Your task to perform on an android device: Go to Reddit.com Image 0: 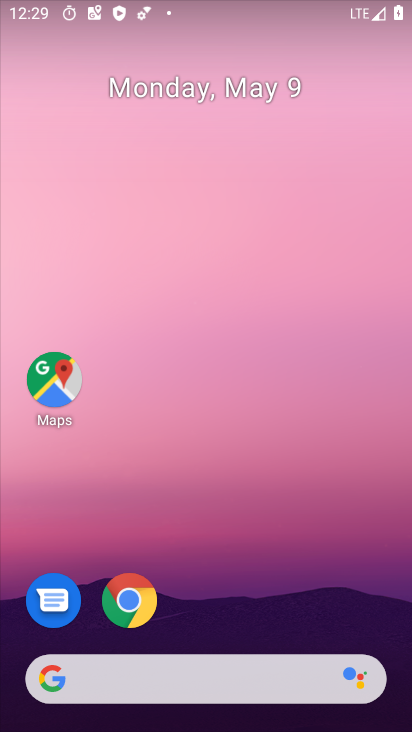
Step 0: drag from (230, 544) to (249, 255)
Your task to perform on an android device: Go to Reddit.com Image 1: 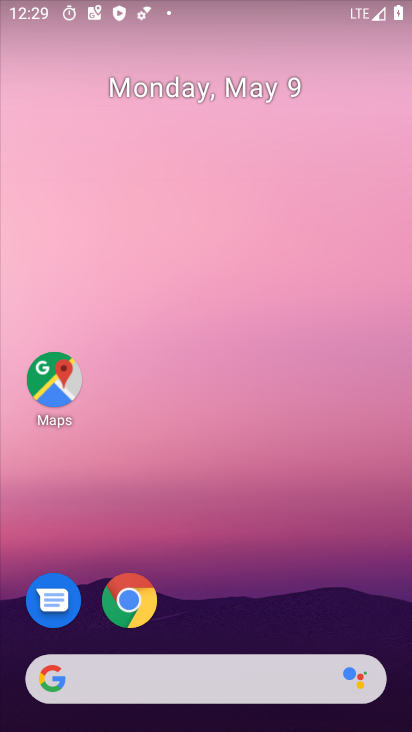
Step 1: drag from (246, 630) to (314, 176)
Your task to perform on an android device: Go to Reddit.com Image 2: 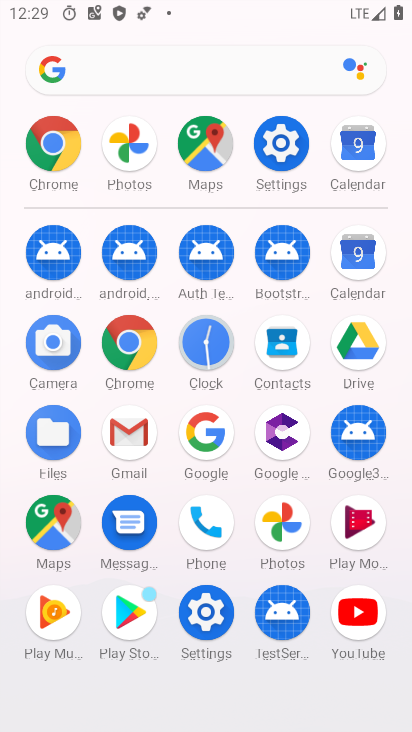
Step 2: drag from (217, 592) to (217, 152)
Your task to perform on an android device: Go to Reddit.com Image 3: 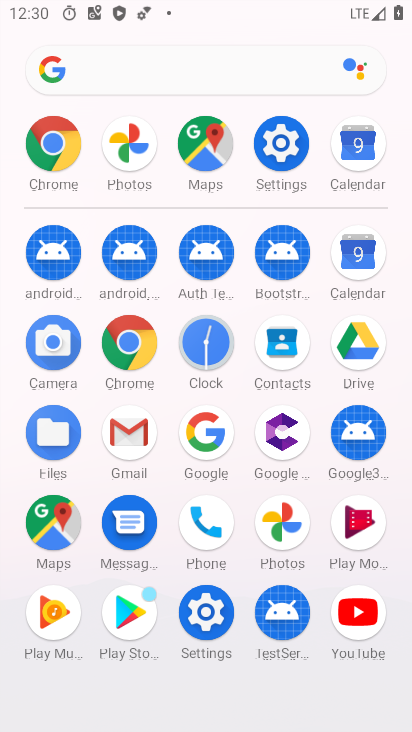
Step 3: click (136, 347)
Your task to perform on an android device: Go to Reddit.com Image 4: 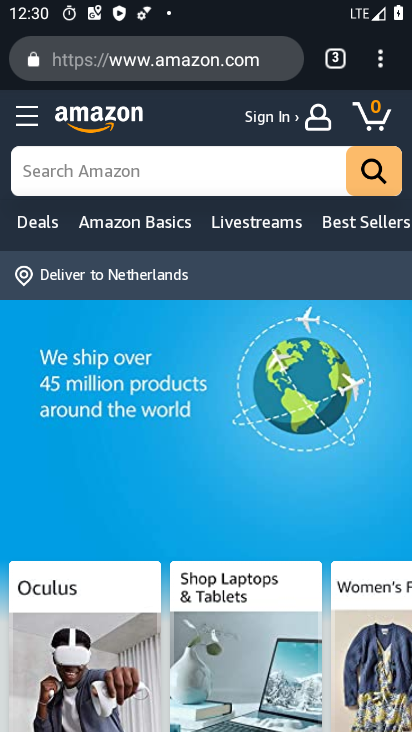
Step 4: click (334, 64)
Your task to perform on an android device: Go to Reddit.com Image 5: 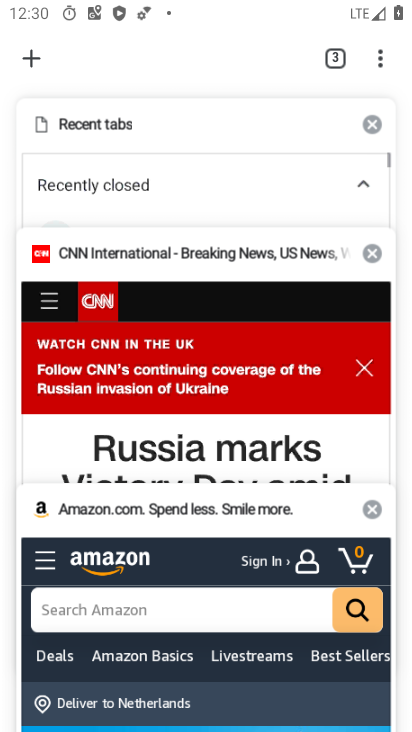
Step 5: click (33, 67)
Your task to perform on an android device: Go to Reddit.com Image 6: 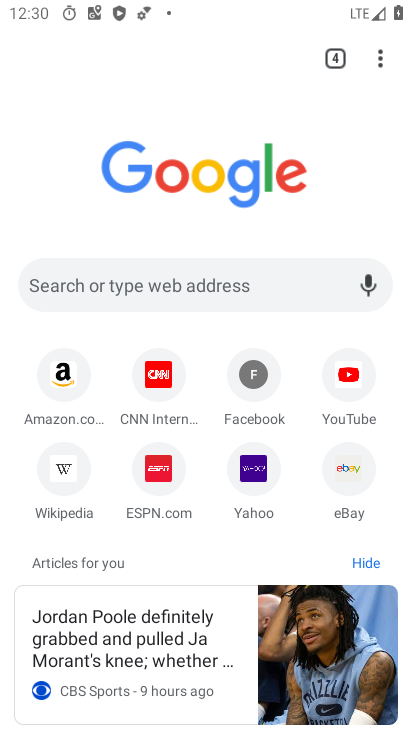
Step 6: click (134, 274)
Your task to perform on an android device: Go to Reddit.com Image 7: 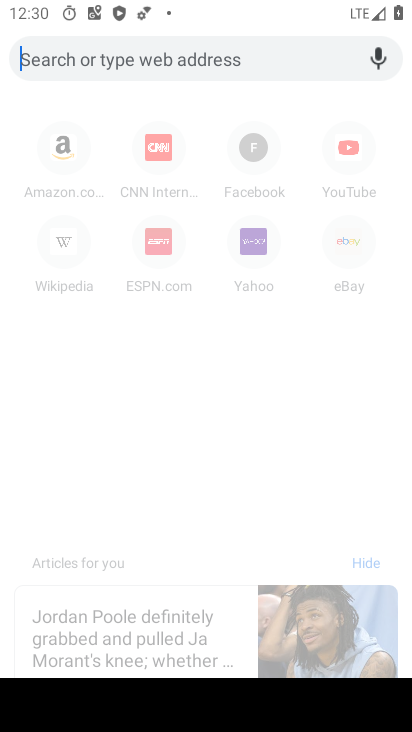
Step 7: type "Reddit.com"
Your task to perform on an android device: Go to Reddit.com Image 8: 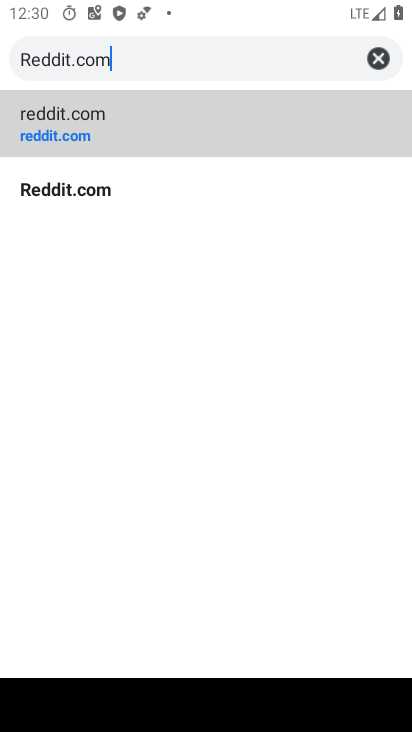
Step 8: type ""
Your task to perform on an android device: Go to Reddit.com Image 9: 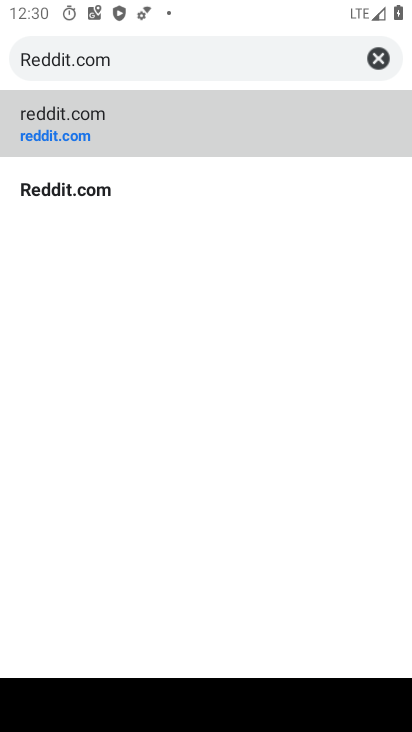
Step 9: click (118, 137)
Your task to perform on an android device: Go to Reddit.com Image 10: 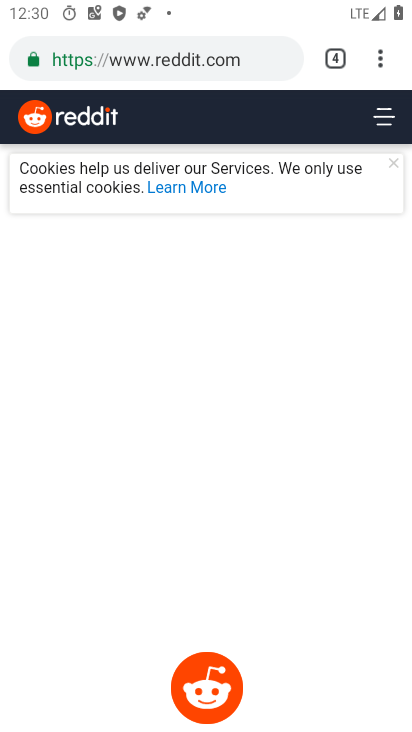
Step 10: drag from (168, 261) to (204, 245)
Your task to perform on an android device: Go to Reddit.com Image 11: 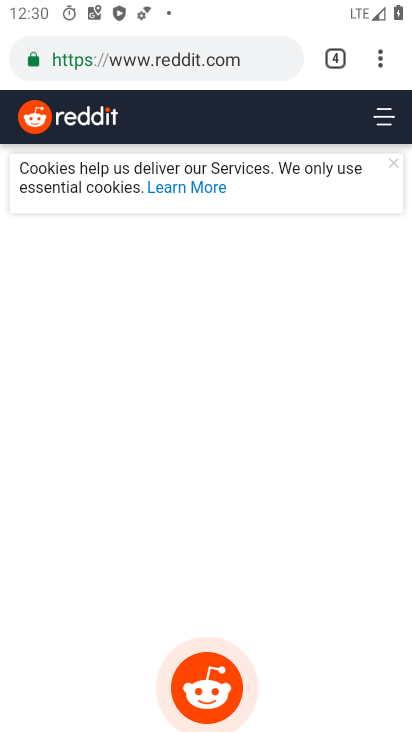
Step 11: click (392, 159)
Your task to perform on an android device: Go to Reddit.com Image 12: 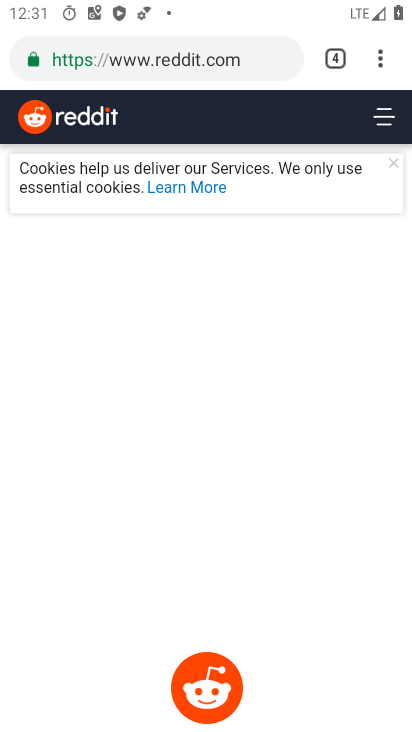
Step 12: task complete